Your task to perform on an android device: Go to display settings Image 0: 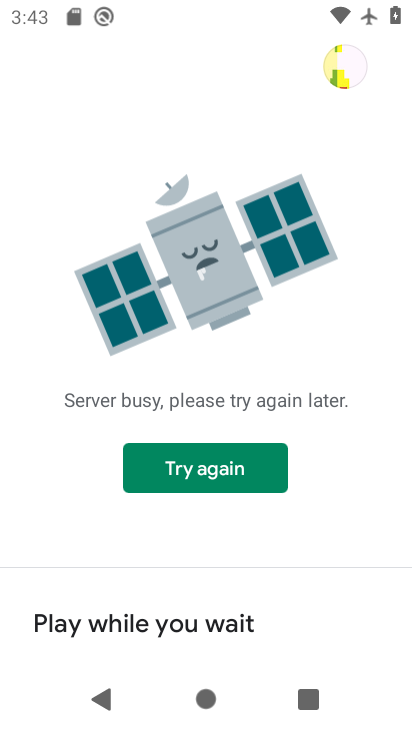
Step 0: press back button
Your task to perform on an android device: Go to display settings Image 1: 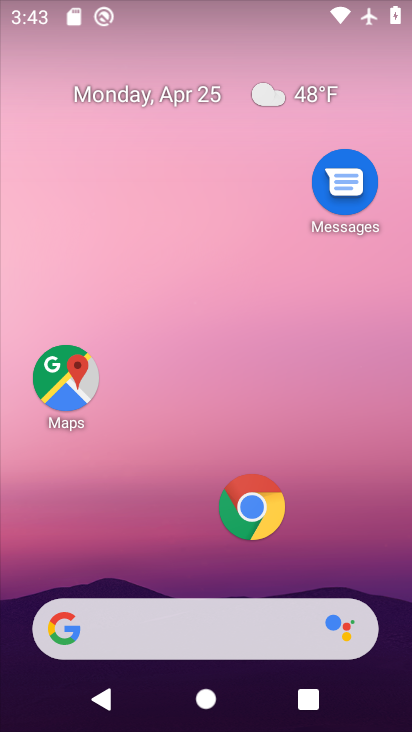
Step 1: click (317, 86)
Your task to perform on an android device: Go to display settings Image 2: 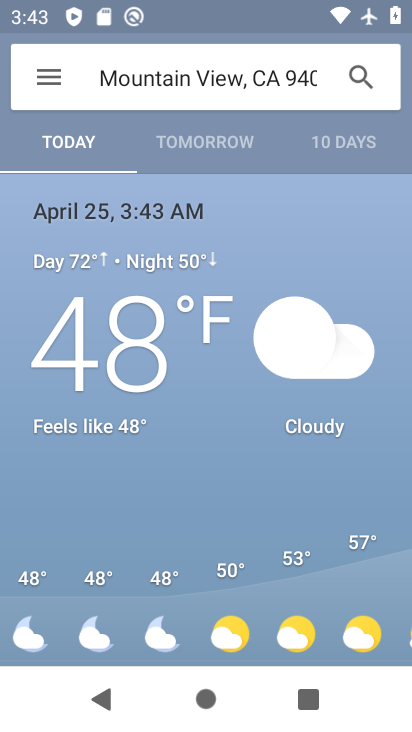
Step 2: press back button
Your task to perform on an android device: Go to display settings Image 3: 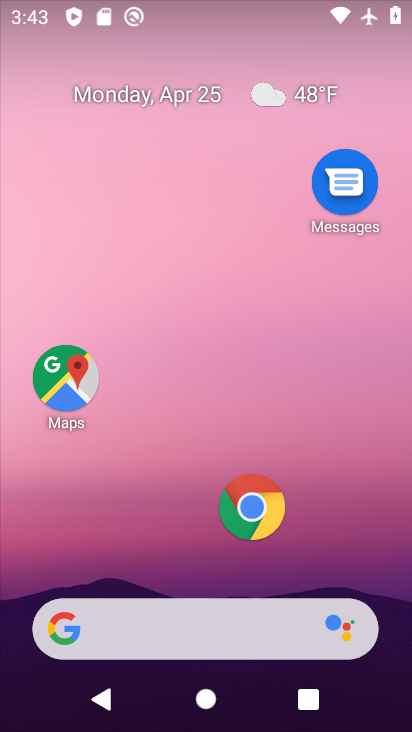
Step 3: drag from (133, 576) to (211, 21)
Your task to perform on an android device: Go to display settings Image 4: 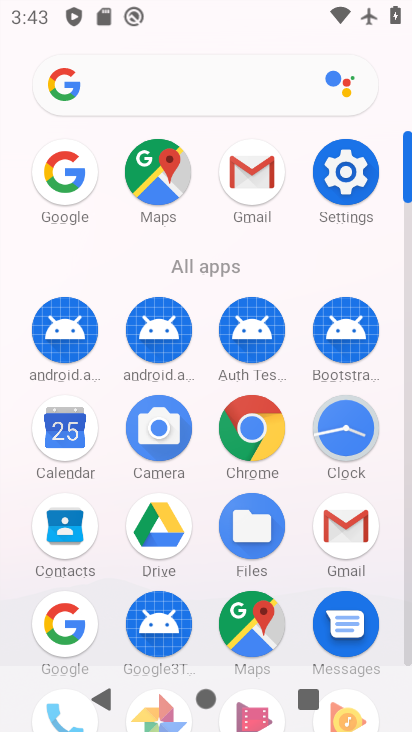
Step 4: click (351, 174)
Your task to perform on an android device: Go to display settings Image 5: 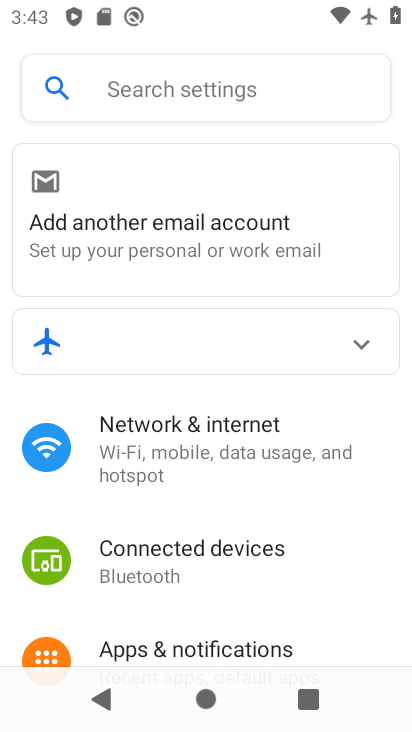
Step 5: drag from (228, 567) to (303, 113)
Your task to perform on an android device: Go to display settings Image 6: 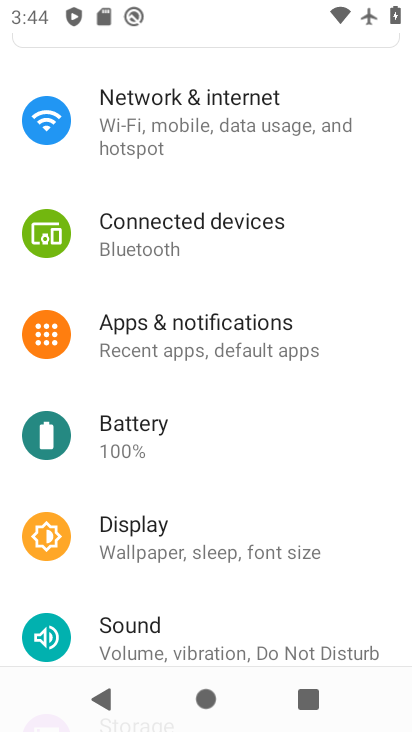
Step 6: click (161, 531)
Your task to perform on an android device: Go to display settings Image 7: 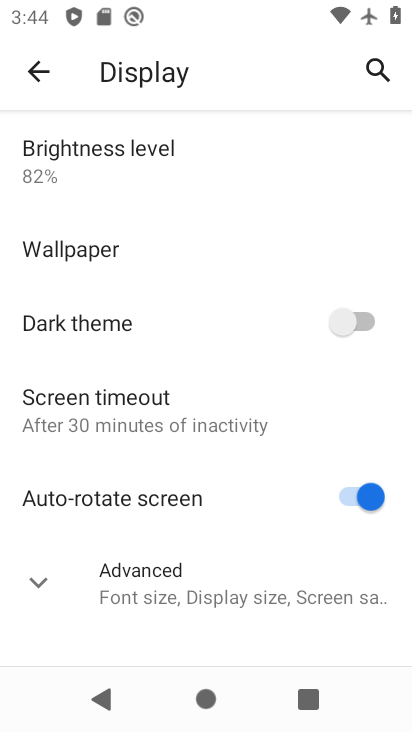
Step 7: click (210, 595)
Your task to perform on an android device: Go to display settings Image 8: 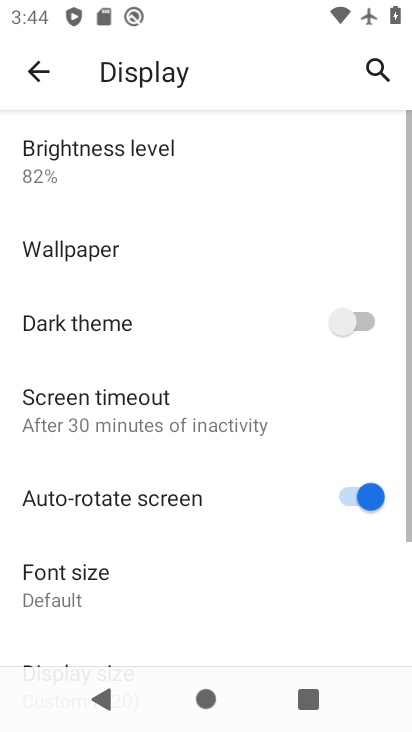
Step 8: task complete